Your task to perform on an android device: change keyboard looks Image 0: 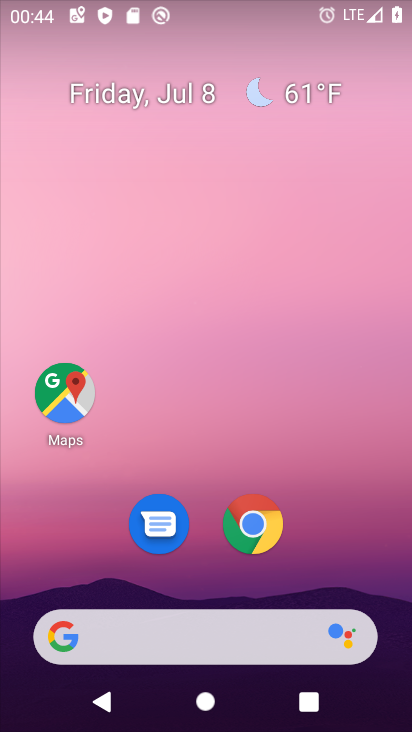
Step 0: drag from (351, 515) to (402, 52)
Your task to perform on an android device: change keyboard looks Image 1: 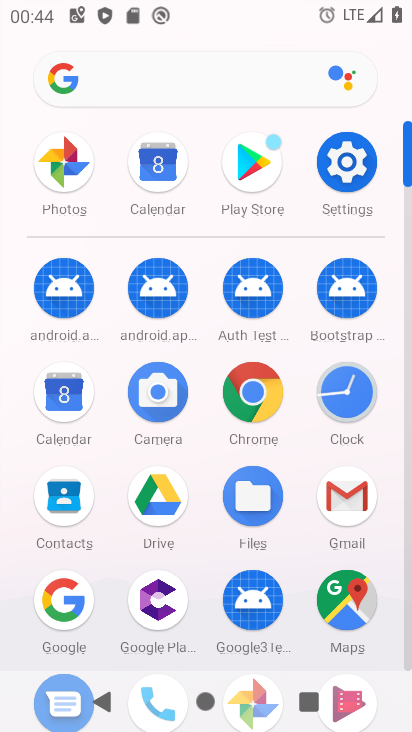
Step 1: click (345, 142)
Your task to perform on an android device: change keyboard looks Image 2: 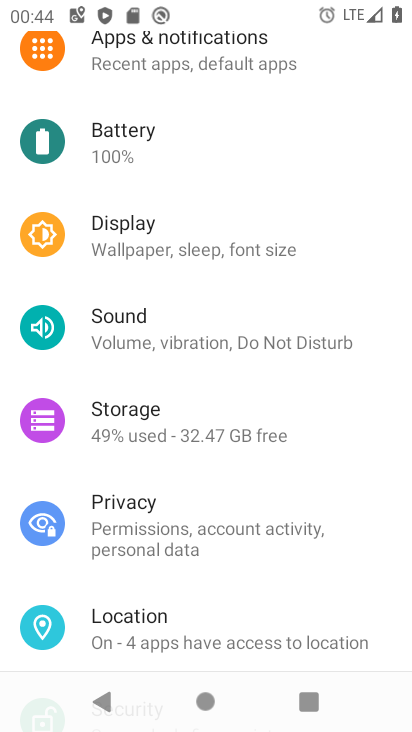
Step 2: drag from (260, 578) to (222, 20)
Your task to perform on an android device: change keyboard looks Image 3: 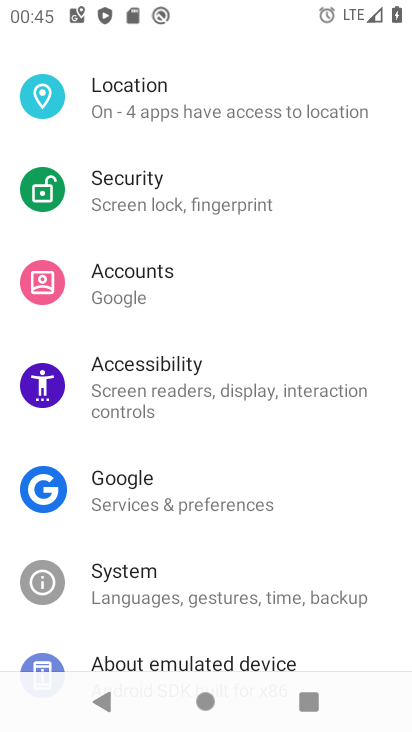
Step 3: click (212, 578)
Your task to perform on an android device: change keyboard looks Image 4: 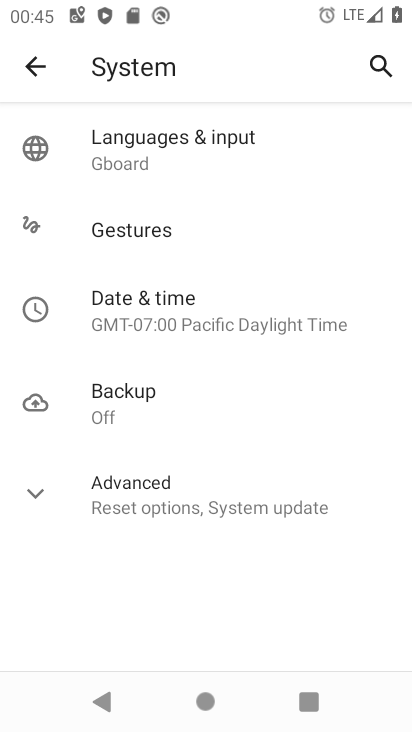
Step 4: click (154, 139)
Your task to perform on an android device: change keyboard looks Image 5: 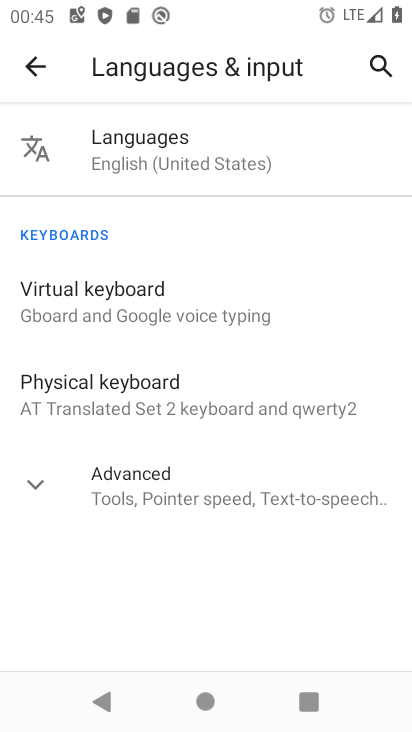
Step 5: click (200, 310)
Your task to perform on an android device: change keyboard looks Image 6: 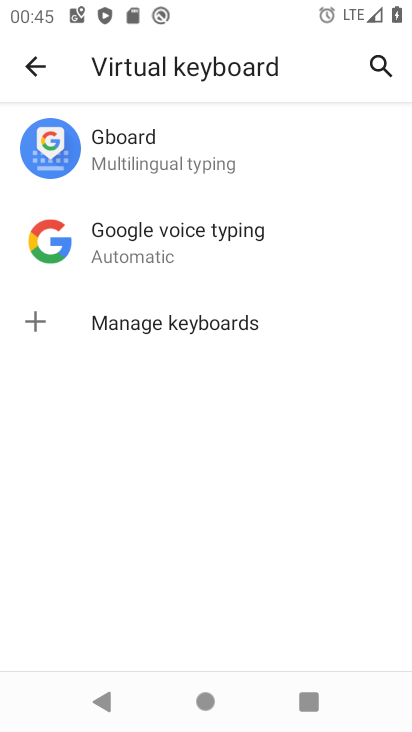
Step 6: click (158, 153)
Your task to perform on an android device: change keyboard looks Image 7: 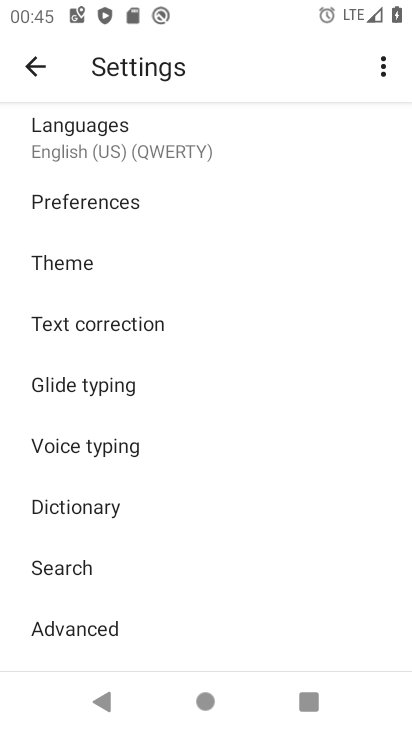
Step 7: click (77, 254)
Your task to perform on an android device: change keyboard looks Image 8: 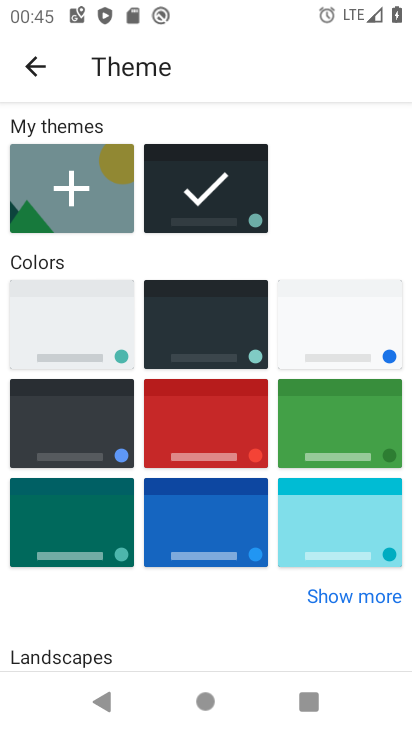
Step 8: click (72, 326)
Your task to perform on an android device: change keyboard looks Image 9: 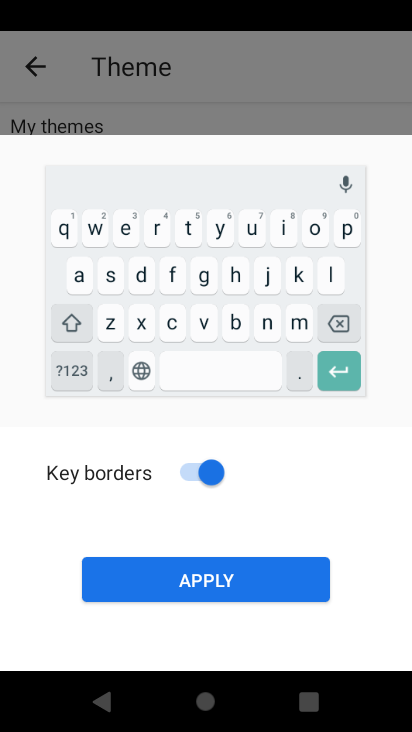
Step 9: click (281, 581)
Your task to perform on an android device: change keyboard looks Image 10: 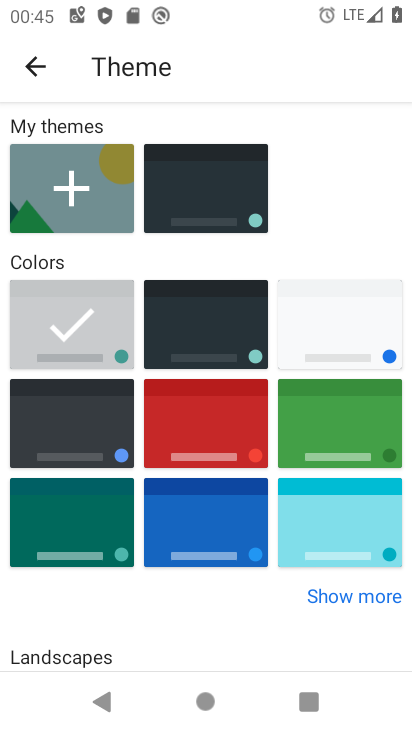
Step 10: task complete